Your task to perform on an android device: show emergency info Image 0: 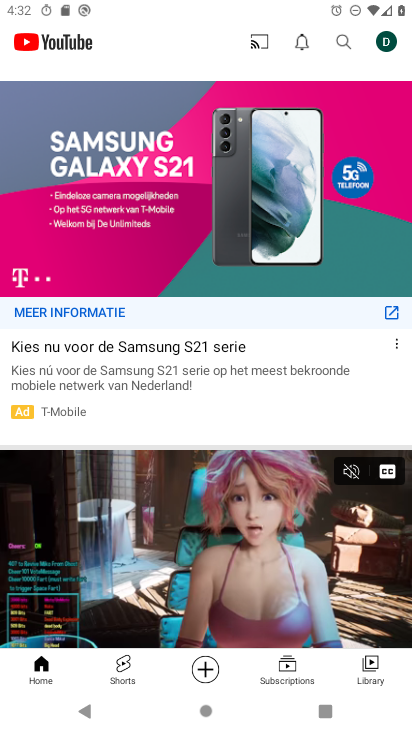
Step 0: press home button
Your task to perform on an android device: show emergency info Image 1: 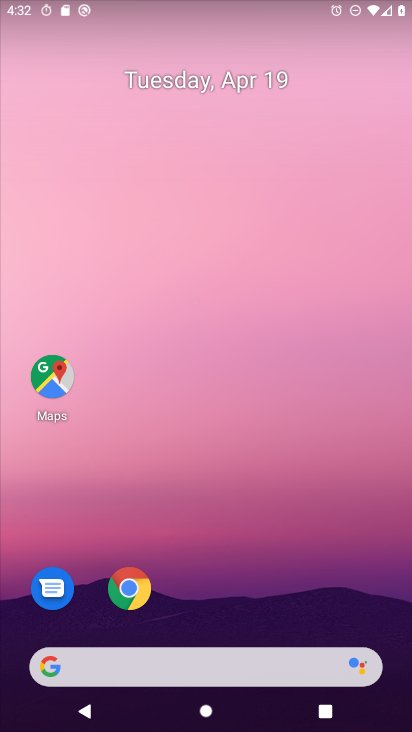
Step 1: drag from (222, 556) to (232, 72)
Your task to perform on an android device: show emergency info Image 2: 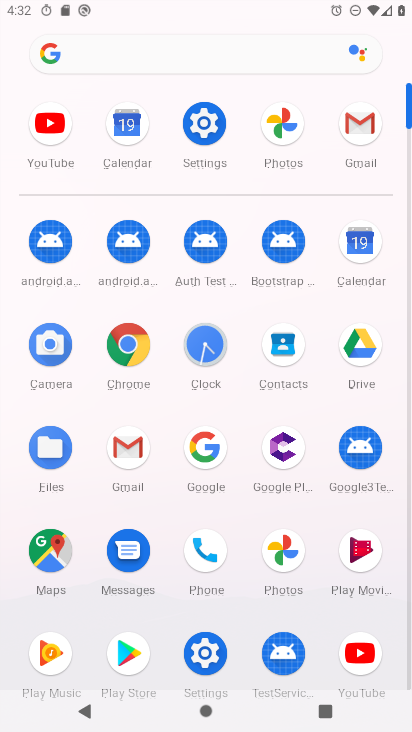
Step 2: click (208, 131)
Your task to perform on an android device: show emergency info Image 3: 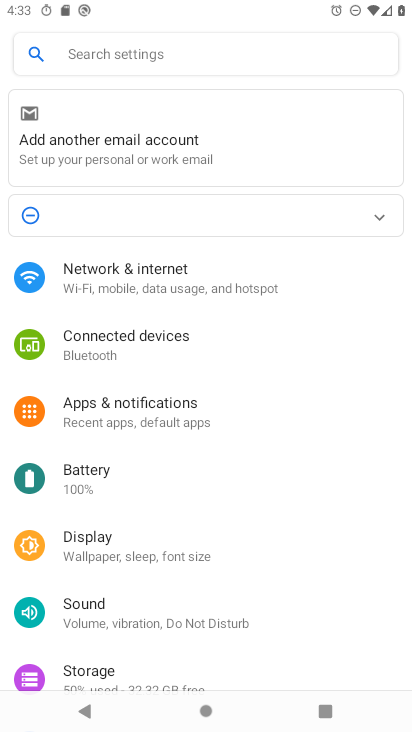
Step 3: drag from (210, 622) to (244, 298)
Your task to perform on an android device: show emergency info Image 4: 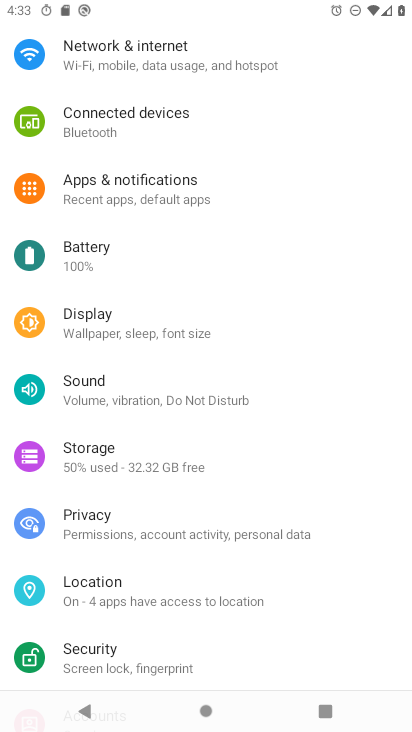
Step 4: drag from (219, 535) to (238, 193)
Your task to perform on an android device: show emergency info Image 5: 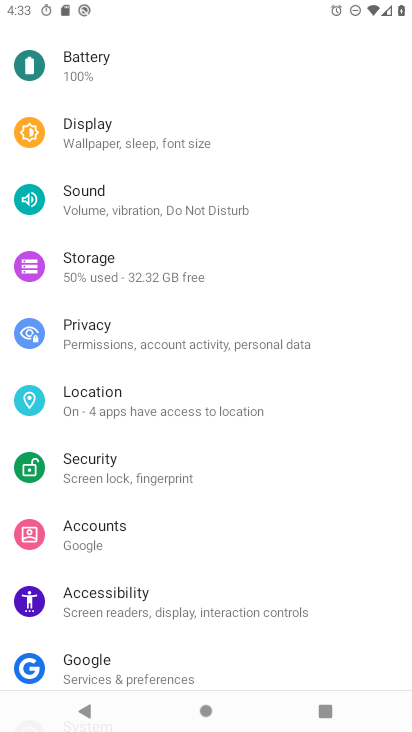
Step 5: drag from (221, 638) to (251, 143)
Your task to perform on an android device: show emergency info Image 6: 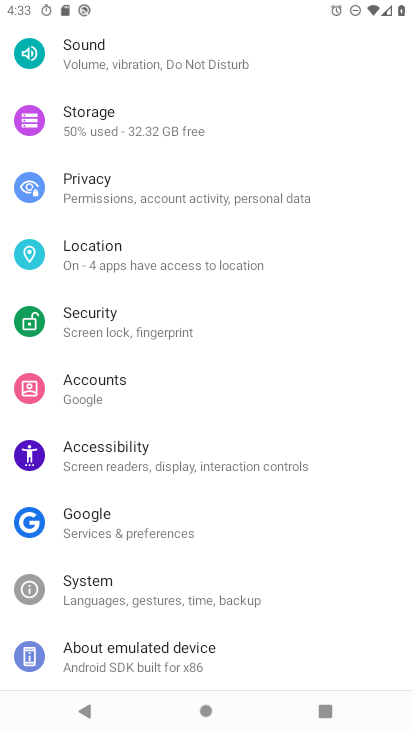
Step 6: click (199, 638)
Your task to perform on an android device: show emergency info Image 7: 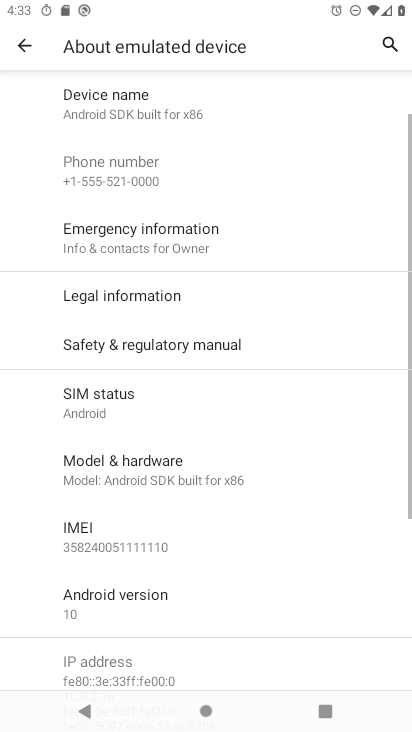
Step 7: click (166, 237)
Your task to perform on an android device: show emergency info Image 8: 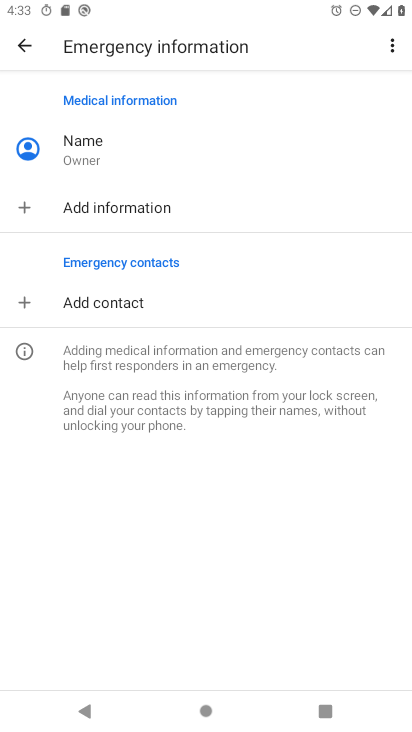
Step 8: task complete